Your task to perform on an android device: allow cookies in the chrome app Image 0: 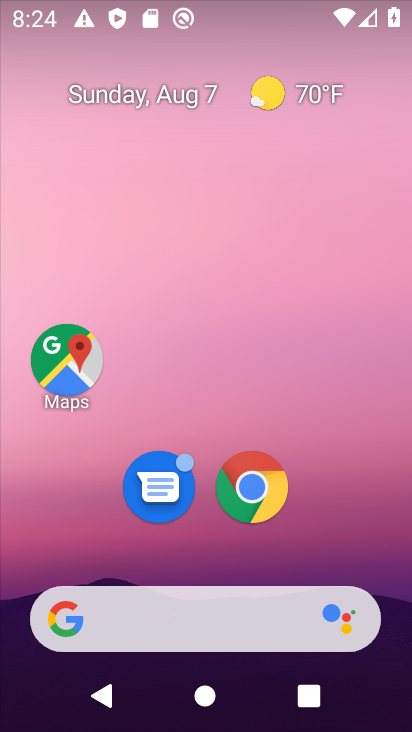
Step 0: click (254, 493)
Your task to perform on an android device: allow cookies in the chrome app Image 1: 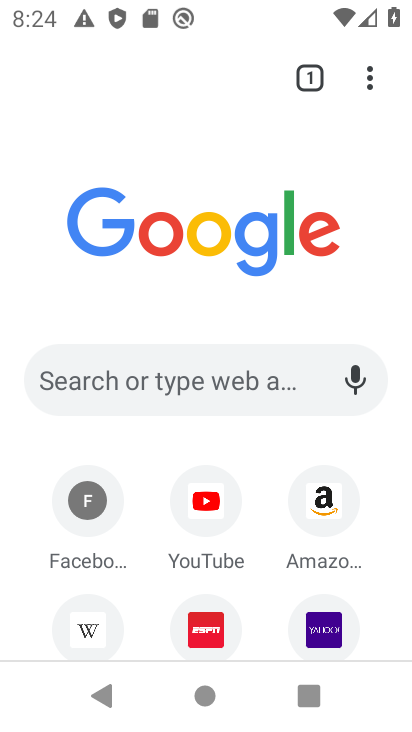
Step 1: click (370, 79)
Your task to perform on an android device: allow cookies in the chrome app Image 2: 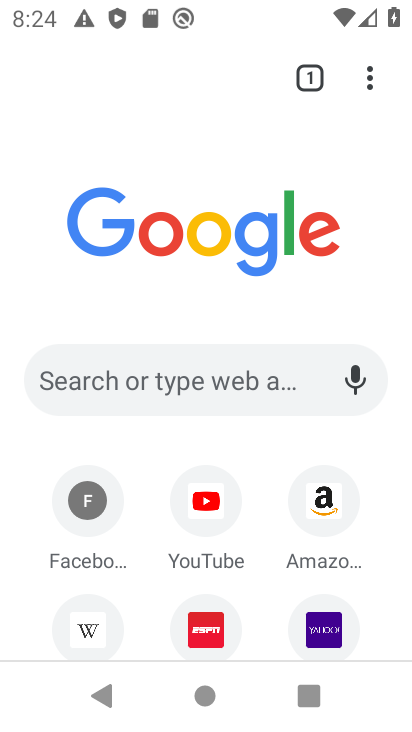
Step 2: click (370, 80)
Your task to perform on an android device: allow cookies in the chrome app Image 3: 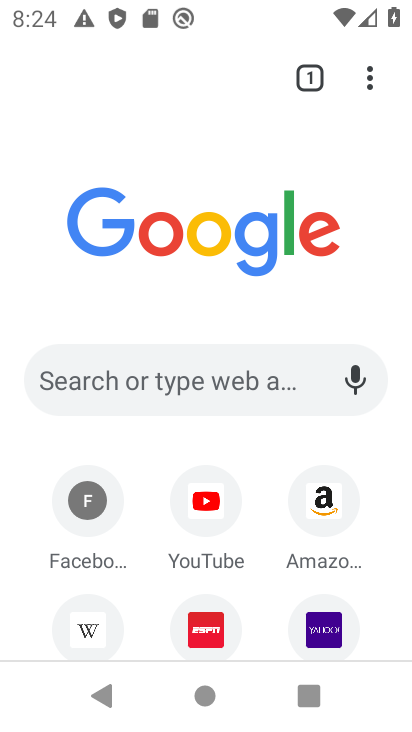
Step 3: click (370, 80)
Your task to perform on an android device: allow cookies in the chrome app Image 4: 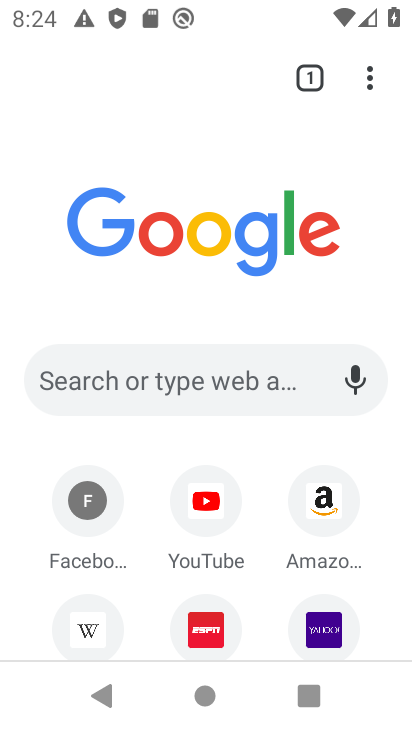
Step 4: click (370, 80)
Your task to perform on an android device: allow cookies in the chrome app Image 5: 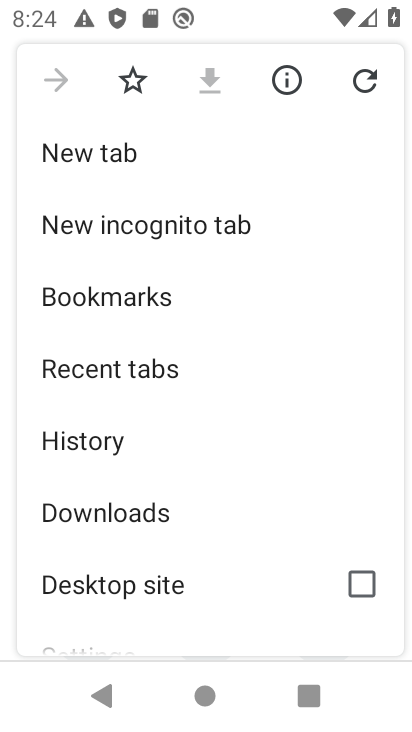
Step 5: drag from (296, 621) to (263, 192)
Your task to perform on an android device: allow cookies in the chrome app Image 6: 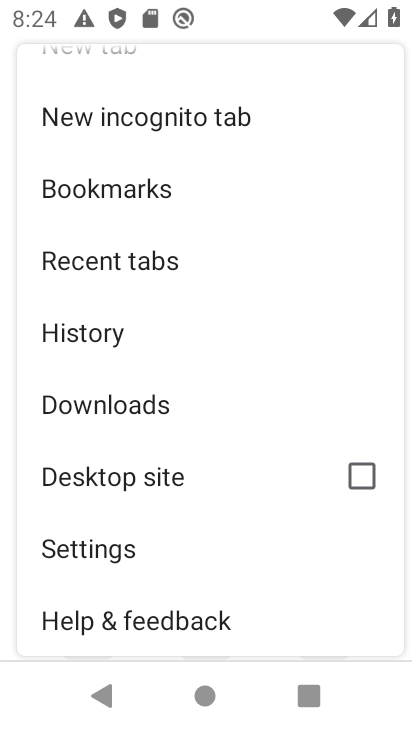
Step 6: click (82, 548)
Your task to perform on an android device: allow cookies in the chrome app Image 7: 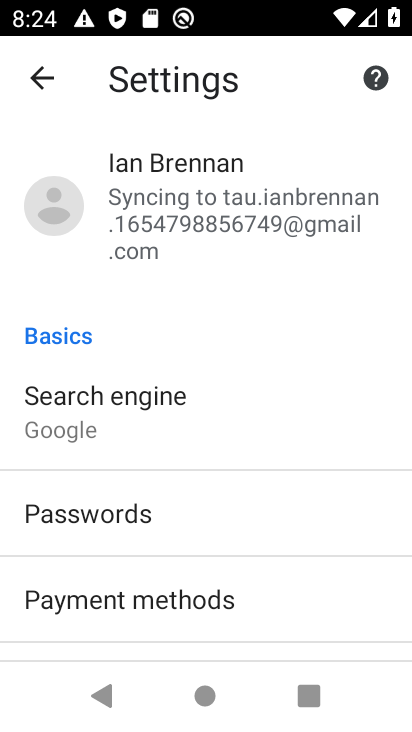
Step 7: drag from (305, 612) to (294, 64)
Your task to perform on an android device: allow cookies in the chrome app Image 8: 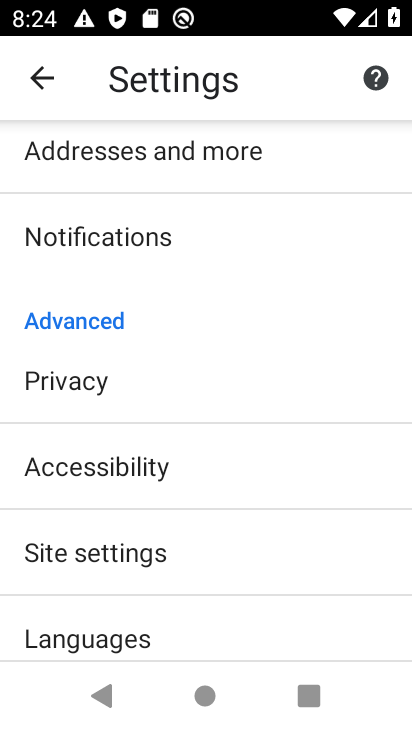
Step 8: drag from (255, 562) to (239, 280)
Your task to perform on an android device: allow cookies in the chrome app Image 9: 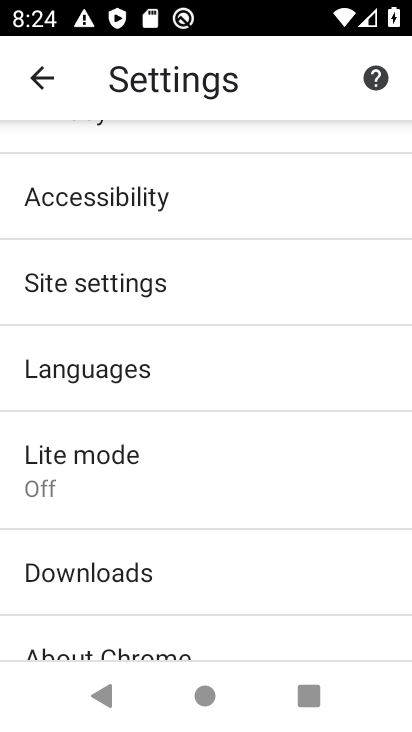
Step 9: click (69, 478)
Your task to perform on an android device: allow cookies in the chrome app Image 10: 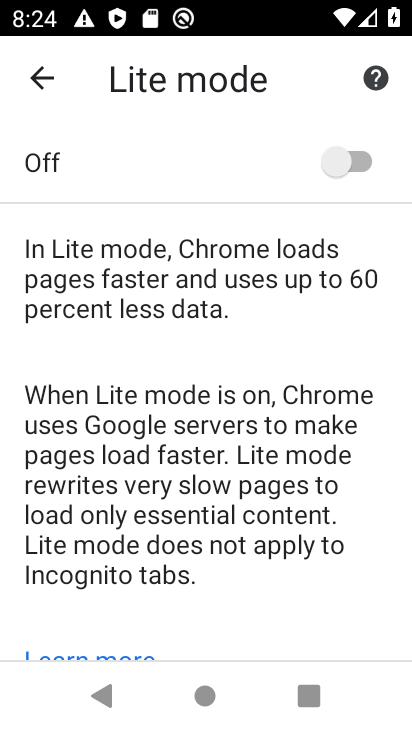
Step 10: click (45, 74)
Your task to perform on an android device: allow cookies in the chrome app Image 11: 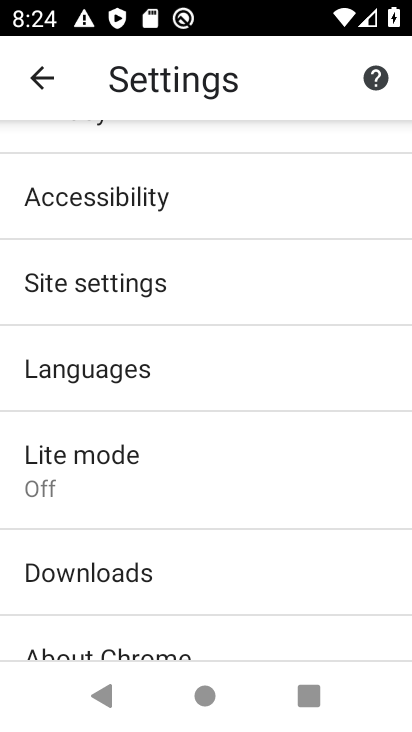
Step 11: click (97, 269)
Your task to perform on an android device: allow cookies in the chrome app Image 12: 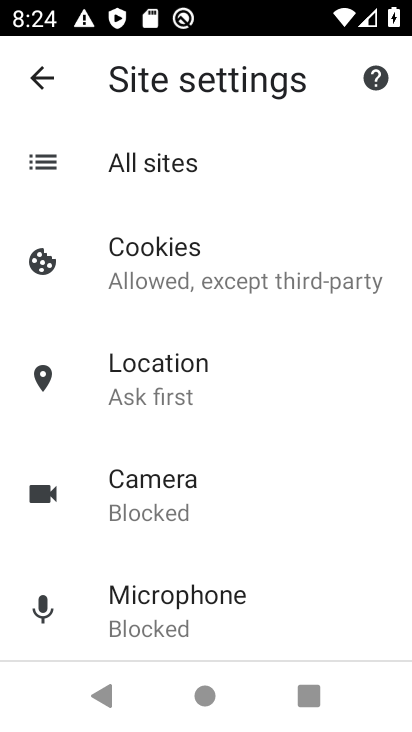
Step 12: click (184, 251)
Your task to perform on an android device: allow cookies in the chrome app Image 13: 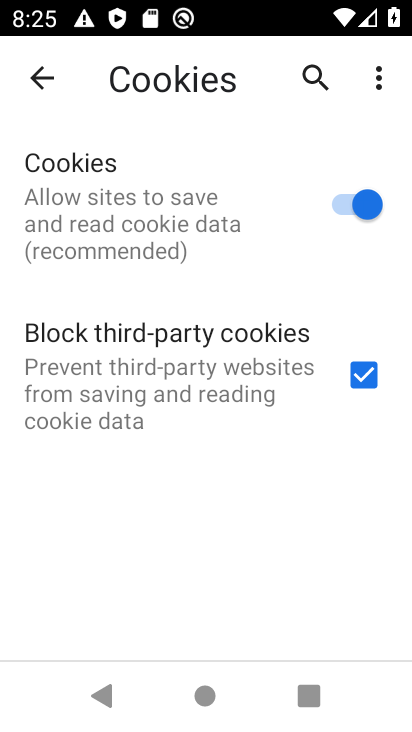
Step 13: task complete